Your task to perform on an android device: toggle notification dots Image 0: 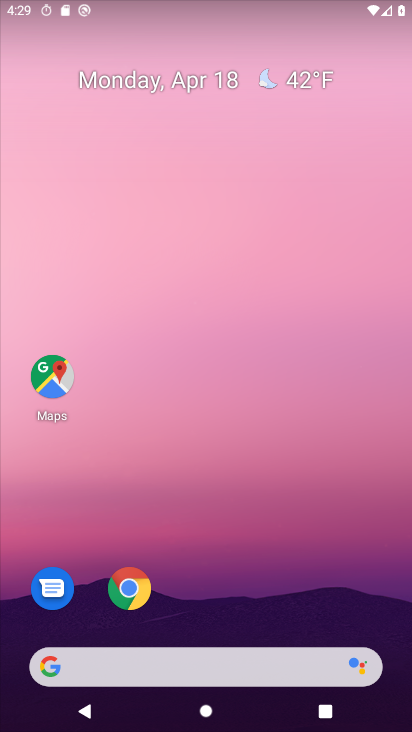
Step 0: drag from (242, 6) to (293, 568)
Your task to perform on an android device: toggle notification dots Image 1: 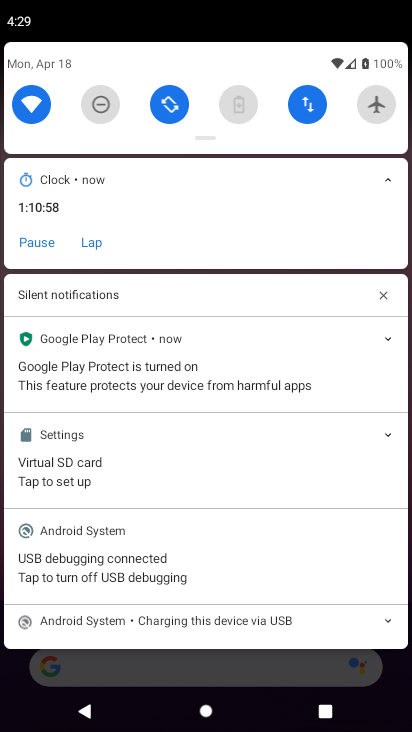
Step 1: drag from (191, 88) to (261, 526)
Your task to perform on an android device: toggle notification dots Image 2: 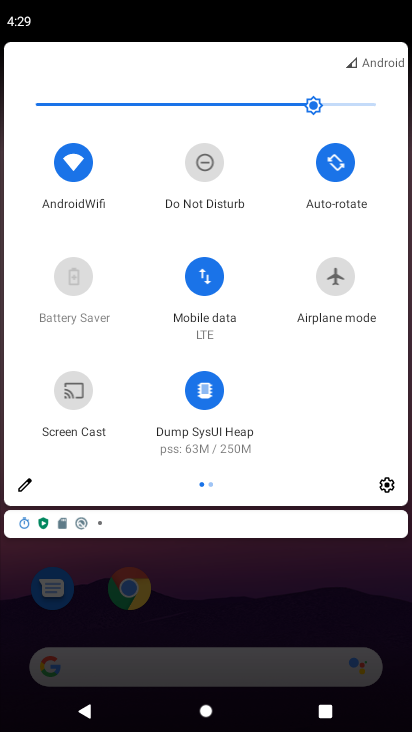
Step 2: click (387, 485)
Your task to perform on an android device: toggle notification dots Image 3: 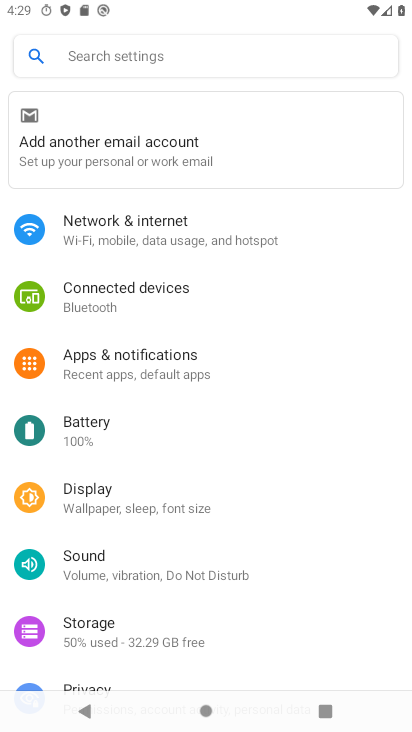
Step 3: click (217, 359)
Your task to perform on an android device: toggle notification dots Image 4: 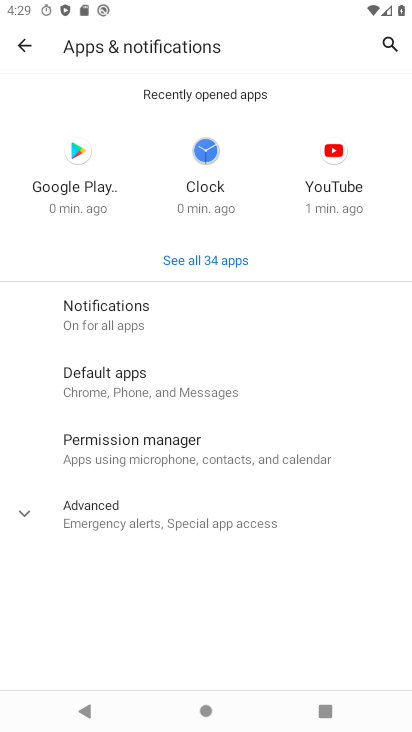
Step 4: click (161, 328)
Your task to perform on an android device: toggle notification dots Image 5: 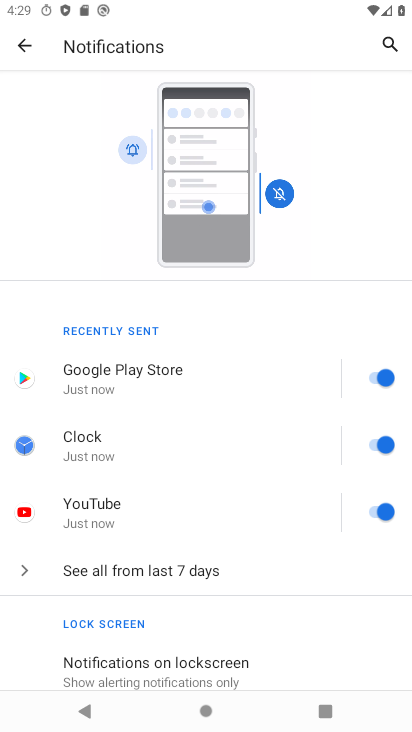
Step 5: drag from (195, 610) to (161, 24)
Your task to perform on an android device: toggle notification dots Image 6: 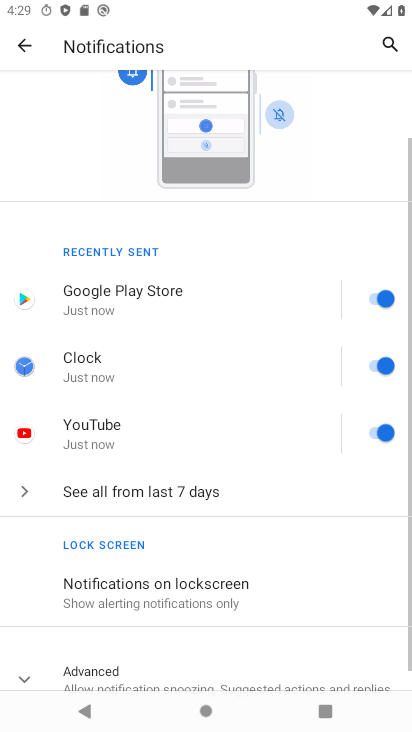
Step 6: click (234, 665)
Your task to perform on an android device: toggle notification dots Image 7: 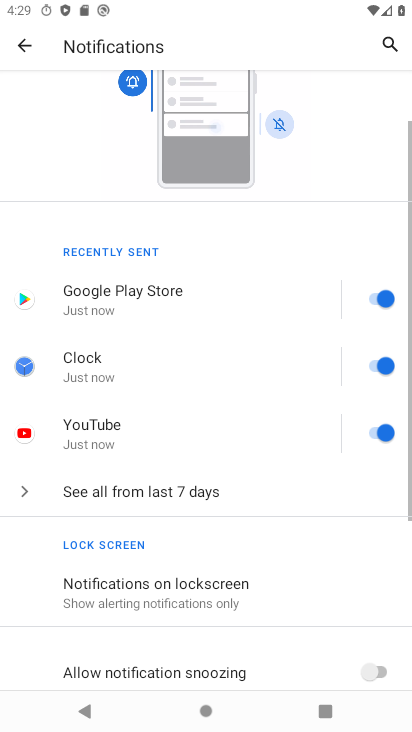
Step 7: drag from (234, 665) to (241, 81)
Your task to perform on an android device: toggle notification dots Image 8: 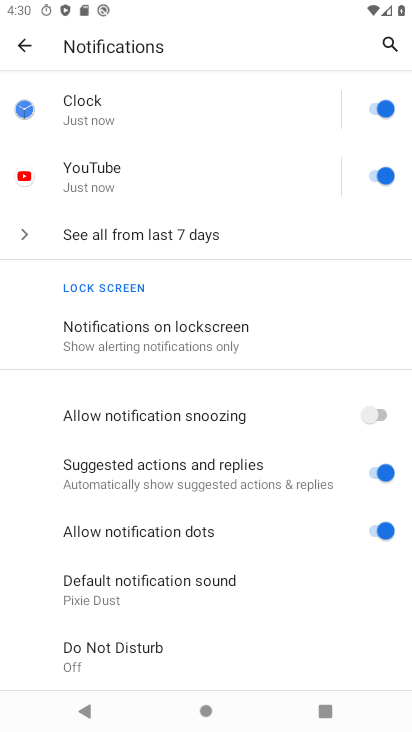
Step 8: click (387, 530)
Your task to perform on an android device: toggle notification dots Image 9: 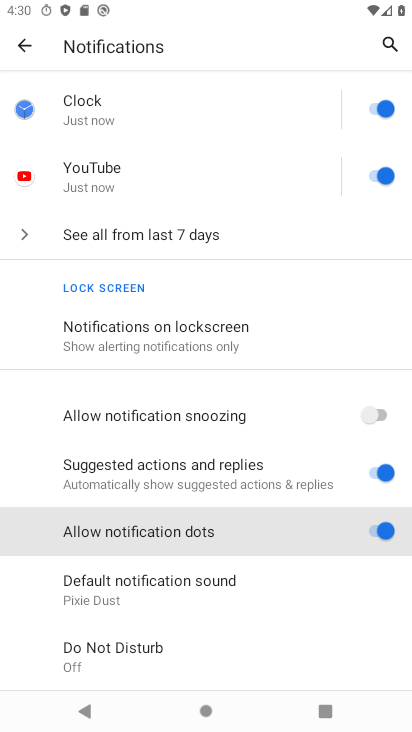
Step 9: click (387, 530)
Your task to perform on an android device: toggle notification dots Image 10: 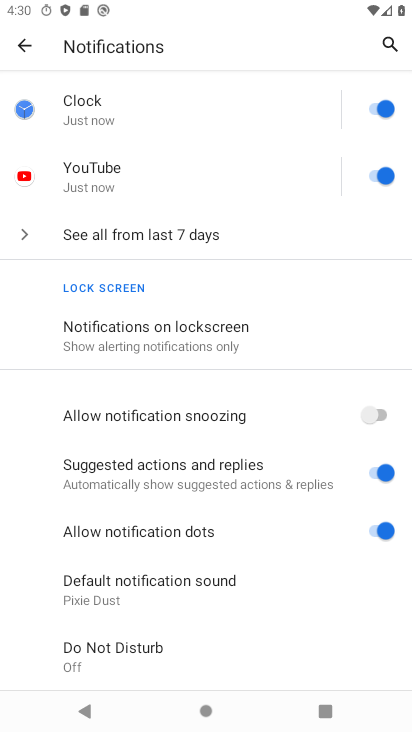
Step 10: task complete